Your task to perform on an android device: see creations saved in the google photos Image 0: 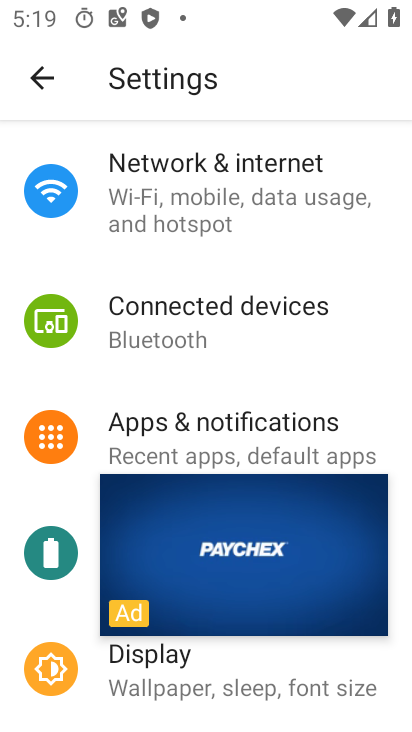
Step 0: press home button
Your task to perform on an android device: see creations saved in the google photos Image 1: 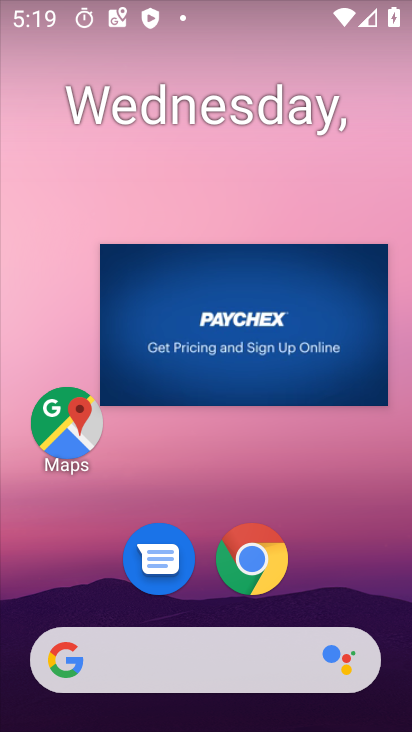
Step 1: drag from (342, 579) to (221, 41)
Your task to perform on an android device: see creations saved in the google photos Image 2: 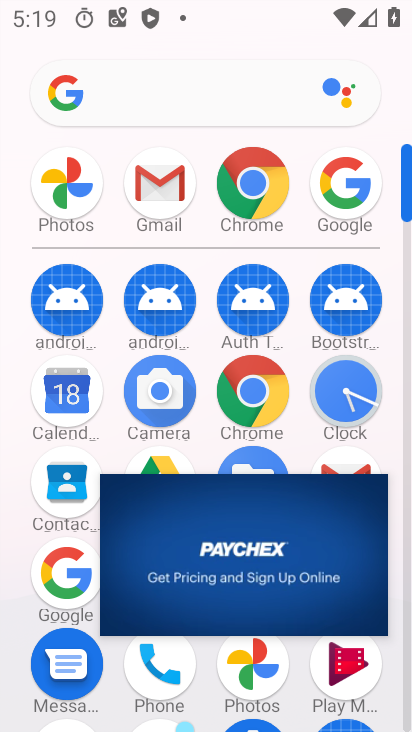
Step 2: click (256, 676)
Your task to perform on an android device: see creations saved in the google photos Image 3: 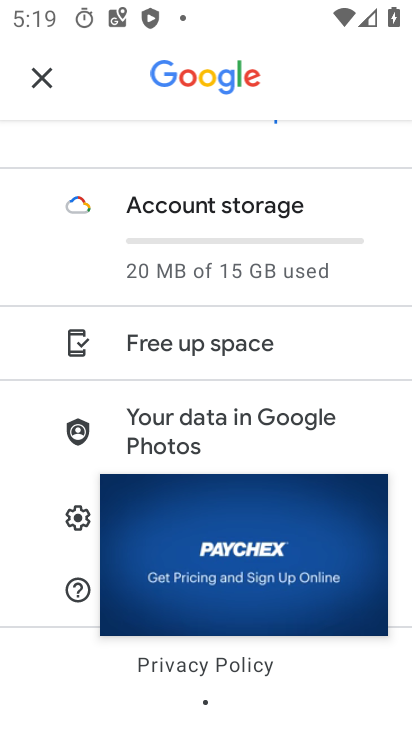
Step 3: click (44, 81)
Your task to perform on an android device: see creations saved in the google photos Image 4: 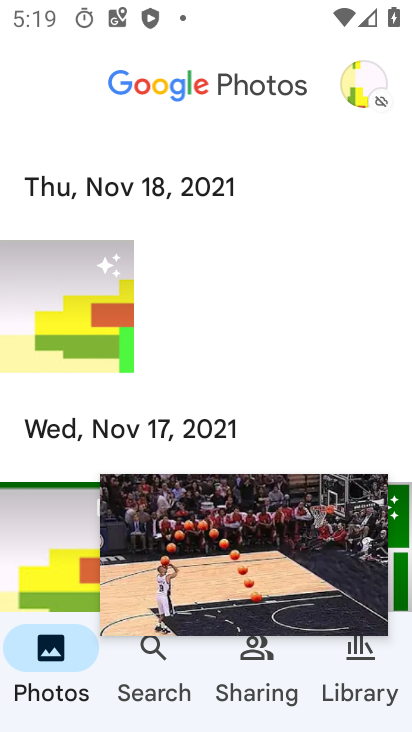
Step 4: click (159, 672)
Your task to perform on an android device: see creations saved in the google photos Image 5: 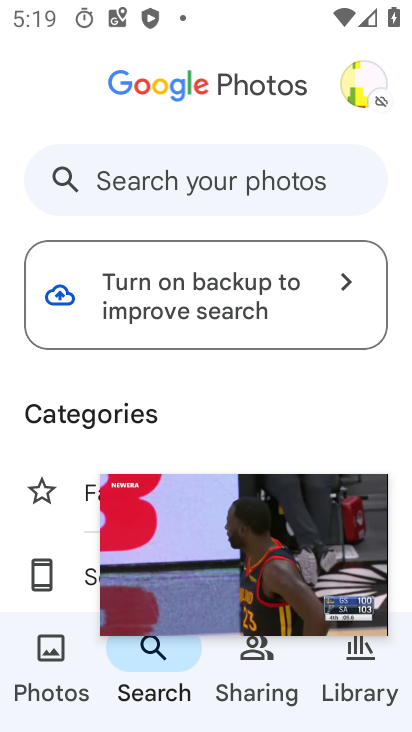
Step 5: click (129, 172)
Your task to perform on an android device: see creations saved in the google photos Image 6: 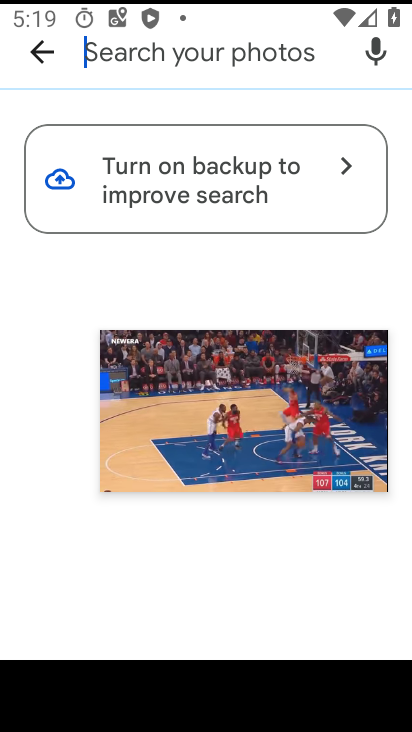
Step 6: type "creations"
Your task to perform on an android device: see creations saved in the google photos Image 7: 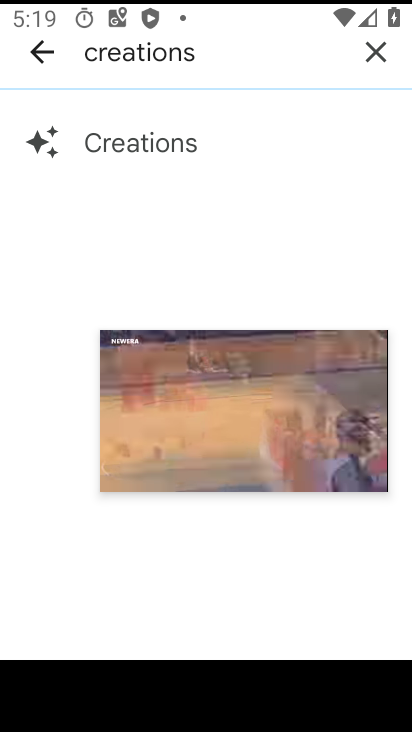
Step 7: click (153, 150)
Your task to perform on an android device: see creations saved in the google photos Image 8: 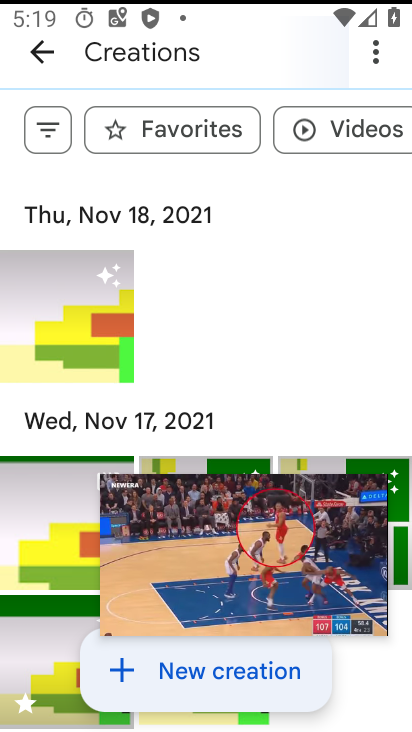
Step 8: task complete